Your task to perform on an android device: Turn off the flashlight Image 0: 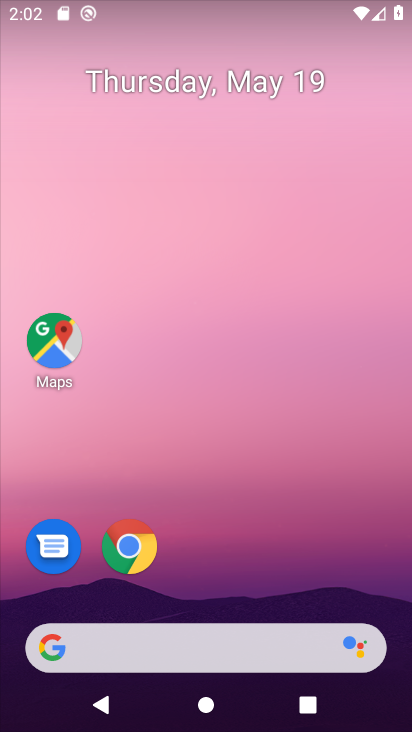
Step 0: drag from (241, 600) to (245, 12)
Your task to perform on an android device: Turn off the flashlight Image 1: 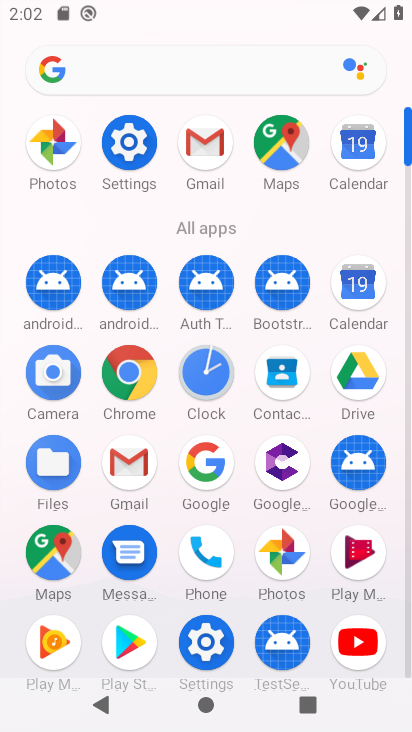
Step 1: click (122, 133)
Your task to perform on an android device: Turn off the flashlight Image 2: 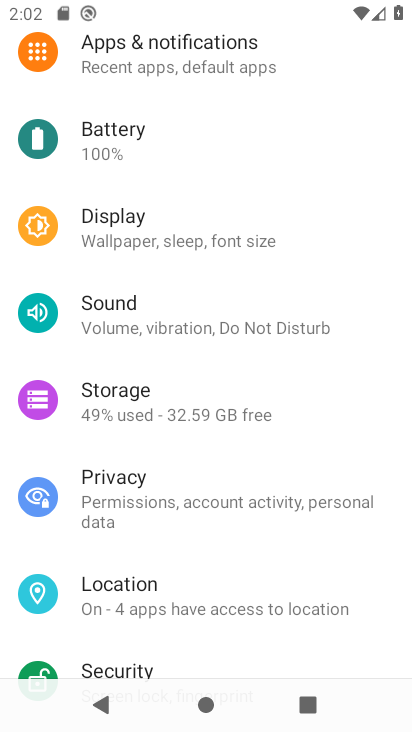
Step 2: drag from (196, 122) to (217, 650)
Your task to perform on an android device: Turn off the flashlight Image 3: 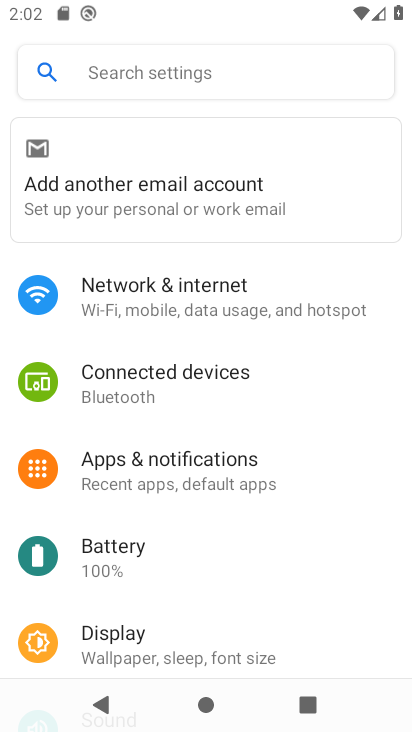
Step 3: click (147, 70)
Your task to perform on an android device: Turn off the flashlight Image 4: 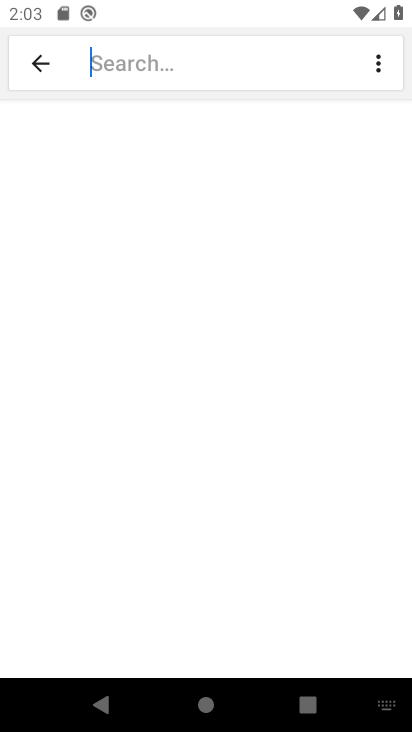
Step 4: type "flashlight"
Your task to perform on an android device: Turn off the flashlight Image 5: 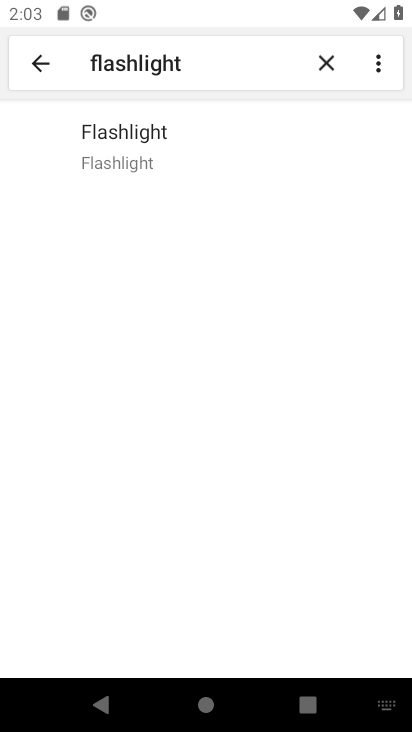
Step 5: click (209, 145)
Your task to perform on an android device: Turn off the flashlight Image 6: 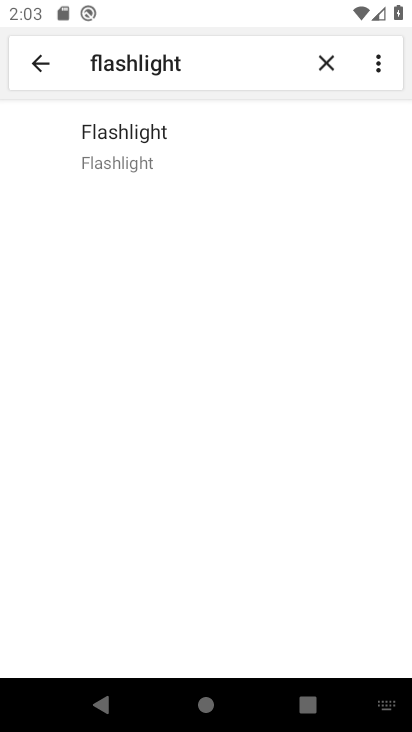
Step 6: task complete